Your task to perform on an android device: Open internet settings Image 0: 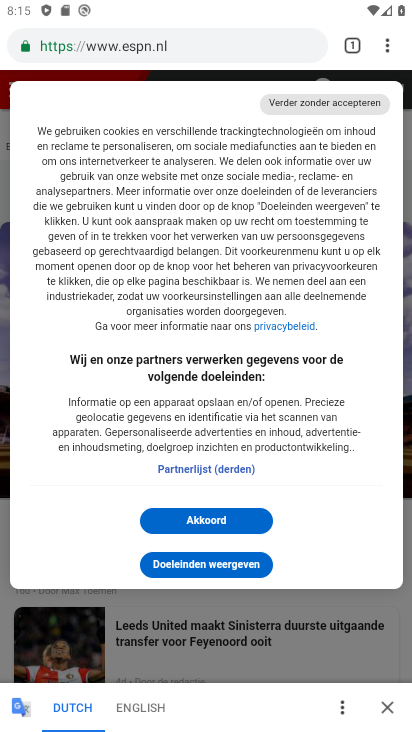
Step 0: press home button
Your task to perform on an android device: Open internet settings Image 1: 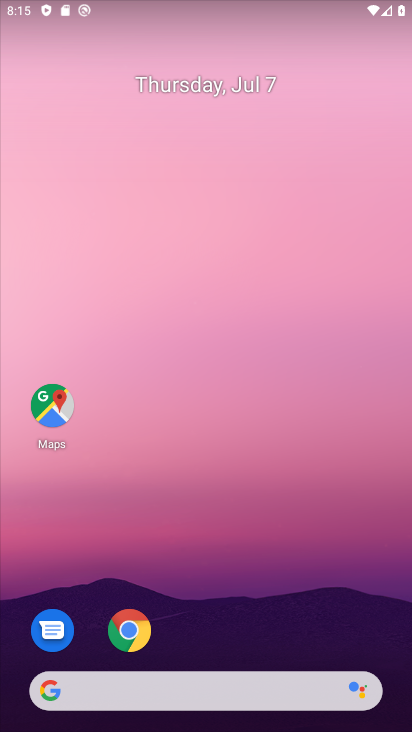
Step 1: drag from (316, 586) to (256, 145)
Your task to perform on an android device: Open internet settings Image 2: 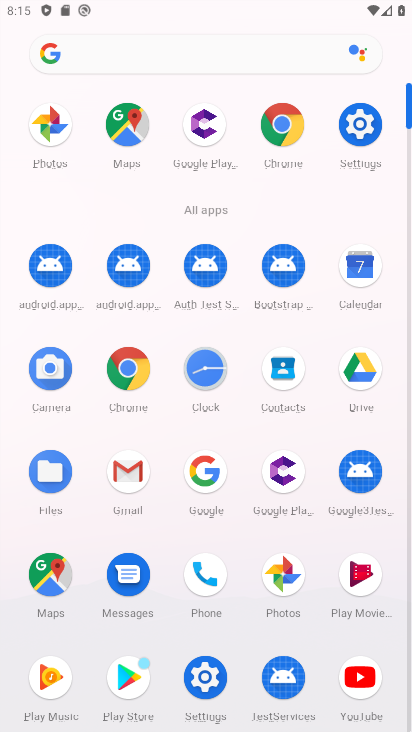
Step 2: click (357, 119)
Your task to perform on an android device: Open internet settings Image 3: 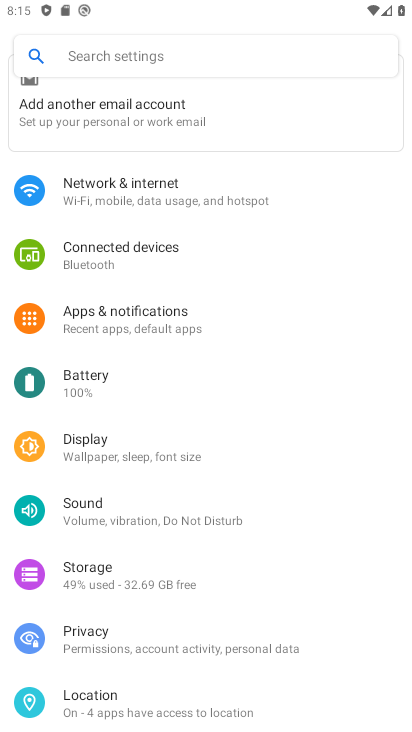
Step 3: click (165, 192)
Your task to perform on an android device: Open internet settings Image 4: 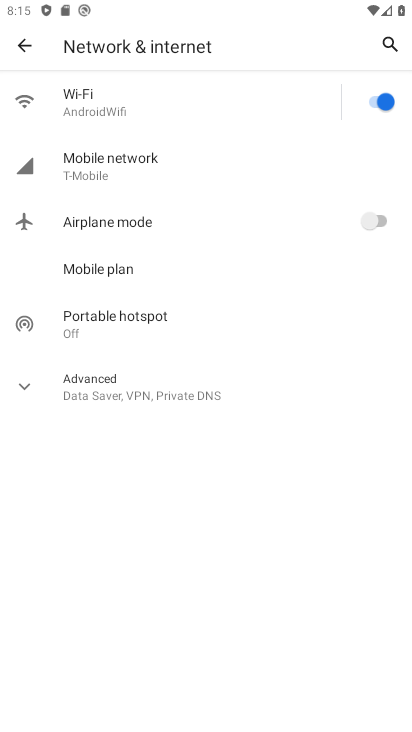
Step 4: click (102, 152)
Your task to perform on an android device: Open internet settings Image 5: 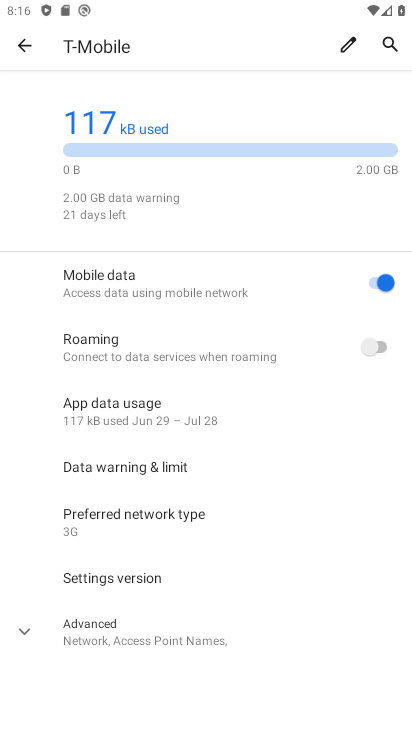
Step 5: task complete